Your task to perform on an android device: Open Wikipedia Image 0: 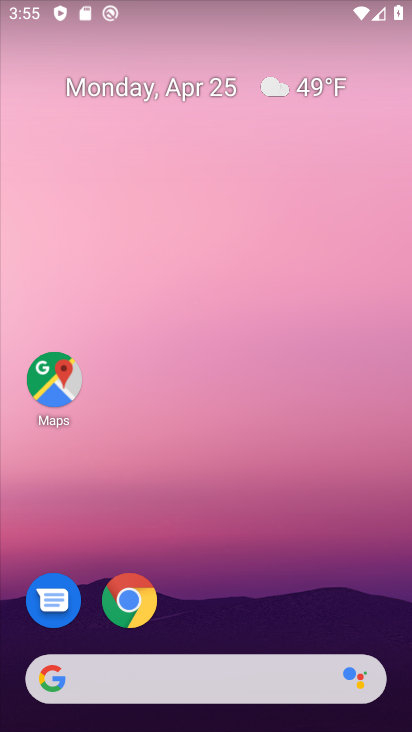
Step 0: click (133, 588)
Your task to perform on an android device: Open Wikipedia Image 1: 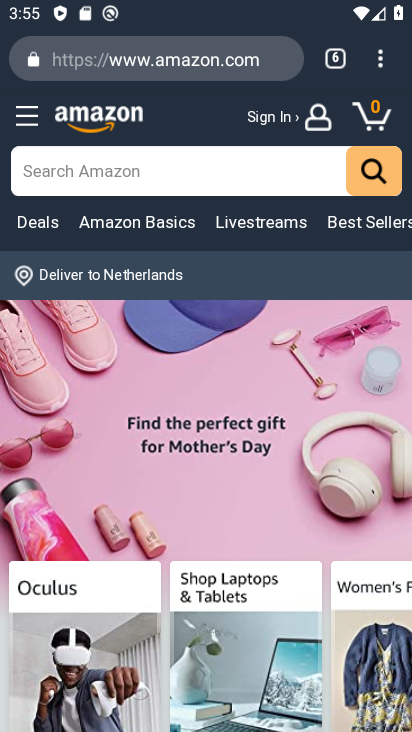
Step 1: click (380, 56)
Your task to perform on an android device: Open Wikipedia Image 2: 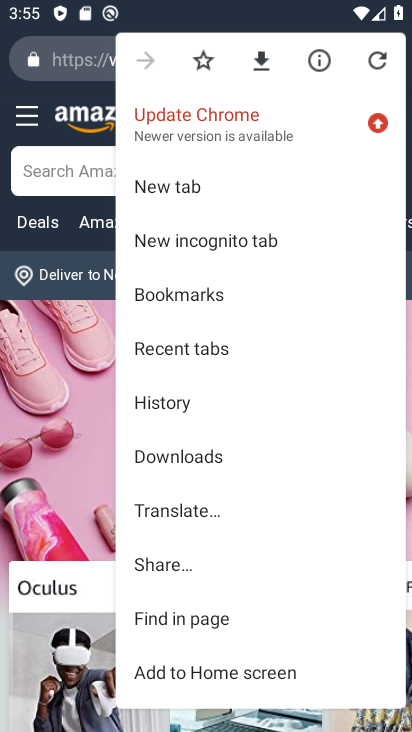
Step 2: click (237, 184)
Your task to perform on an android device: Open Wikipedia Image 3: 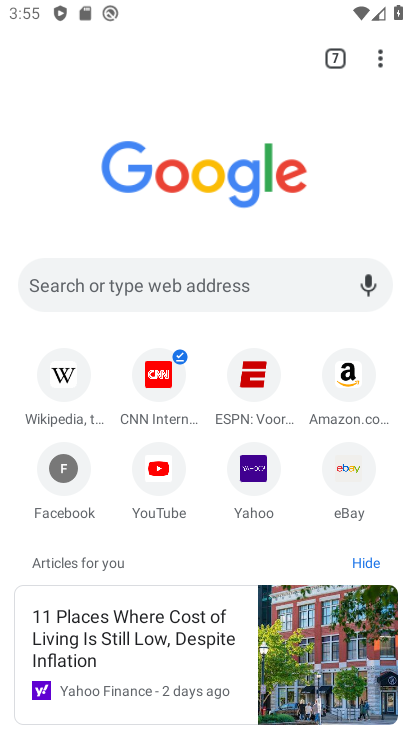
Step 3: click (66, 375)
Your task to perform on an android device: Open Wikipedia Image 4: 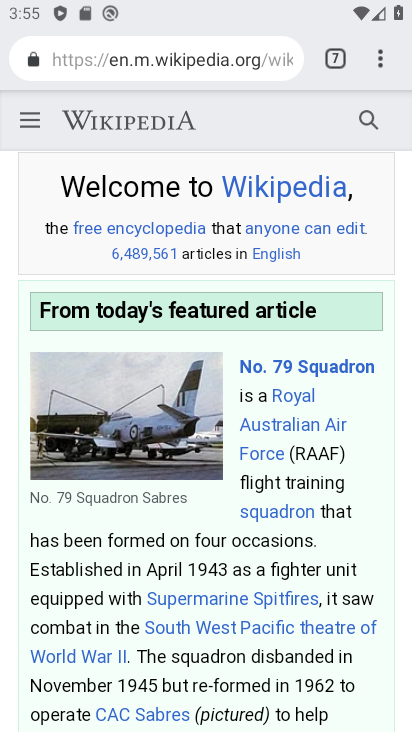
Step 4: task complete